Your task to perform on an android device: What is the capital of Canada? Image 0: 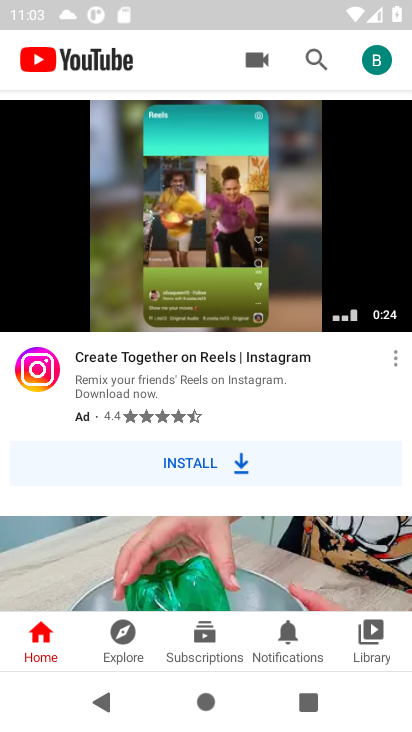
Step 0: press home button
Your task to perform on an android device: What is the capital of Canada? Image 1: 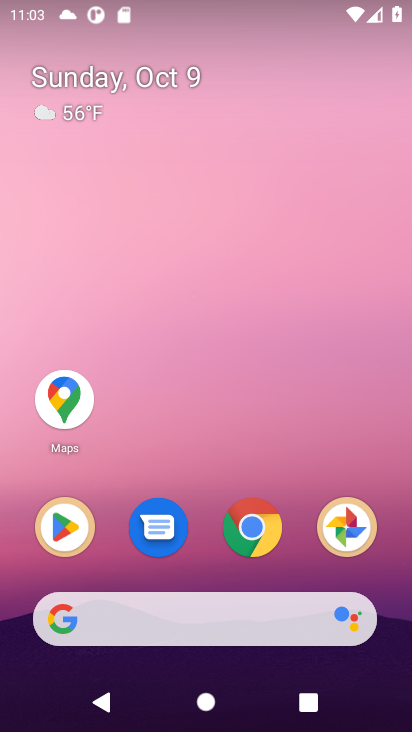
Step 1: click (231, 615)
Your task to perform on an android device: What is the capital of Canada? Image 2: 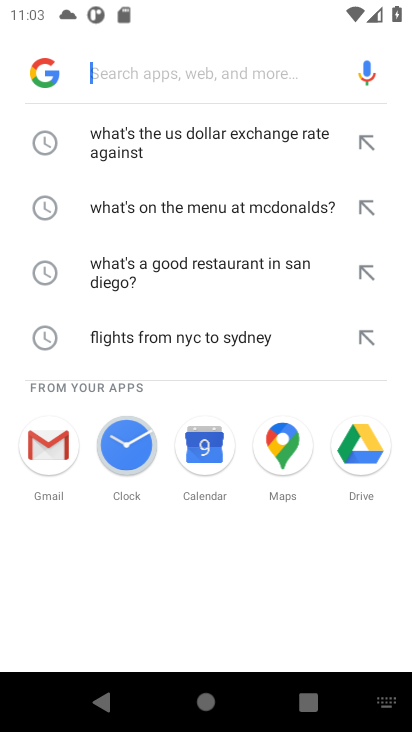
Step 2: click (229, 58)
Your task to perform on an android device: What is the capital of Canada? Image 3: 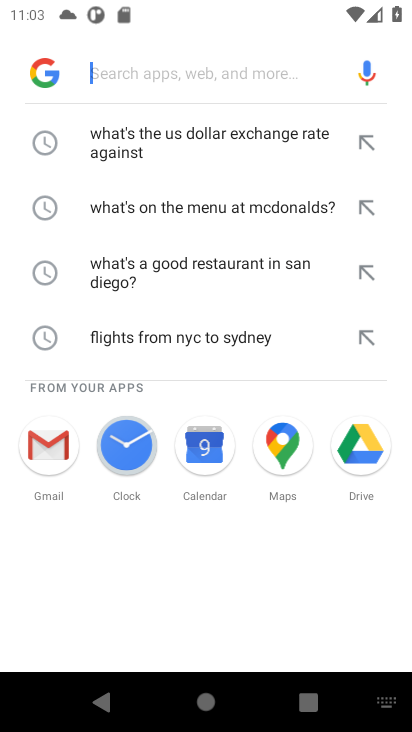
Step 3: type "What is the capital of Canada?"
Your task to perform on an android device: What is the capital of Canada? Image 4: 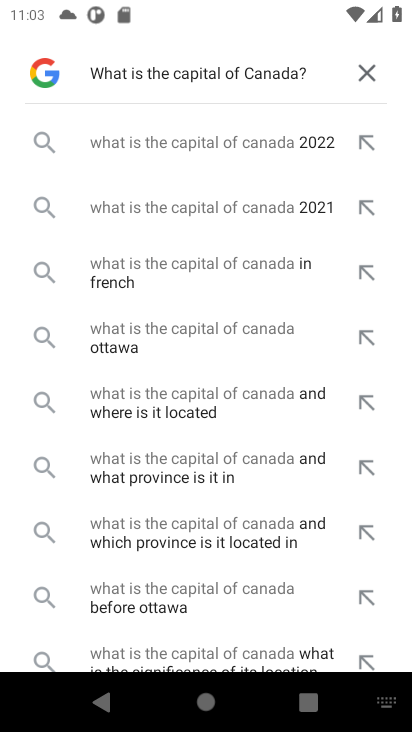
Step 4: click (167, 144)
Your task to perform on an android device: What is the capital of Canada? Image 5: 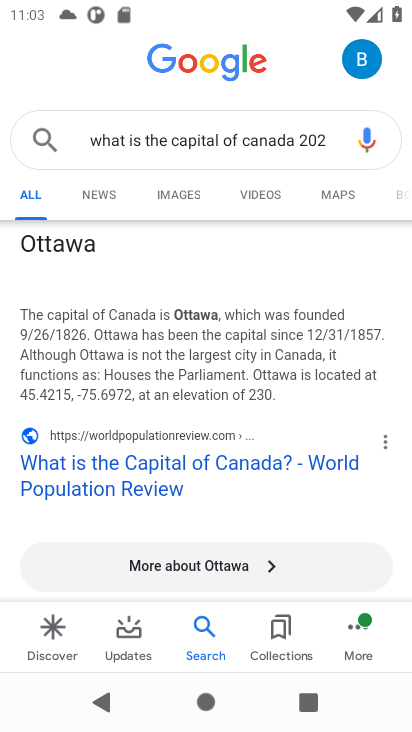
Step 5: click (83, 248)
Your task to perform on an android device: What is the capital of Canada? Image 6: 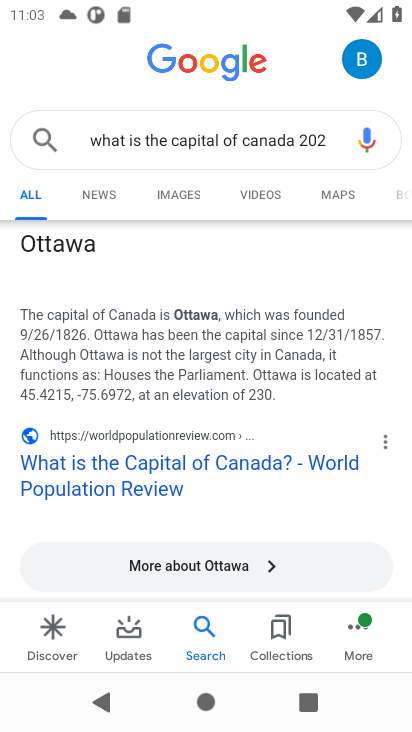
Step 6: click (31, 252)
Your task to perform on an android device: What is the capital of Canada? Image 7: 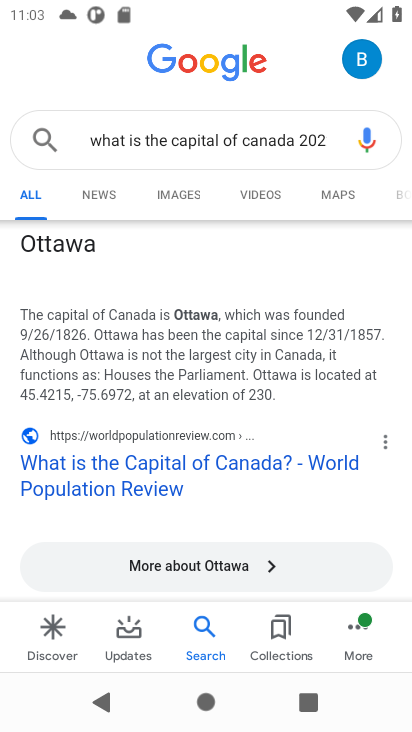
Step 7: click (51, 241)
Your task to perform on an android device: What is the capital of Canada? Image 8: 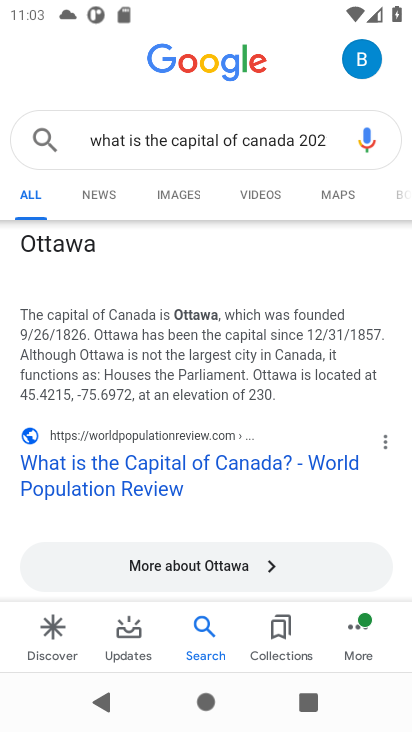
Step 8: drag from (197, 341) to (187, 482)
Your task to perform on an android device: What is the capital of Canada? Image 9: 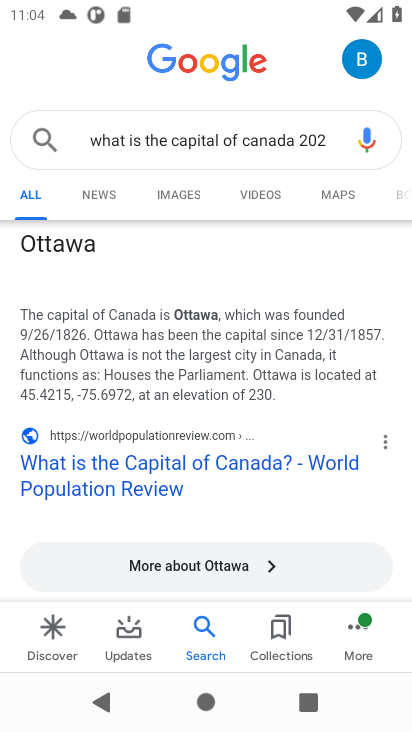
Step 9: click (59, 245)
Your task to perform on an android device: What is the capital of Canada? Image 10: 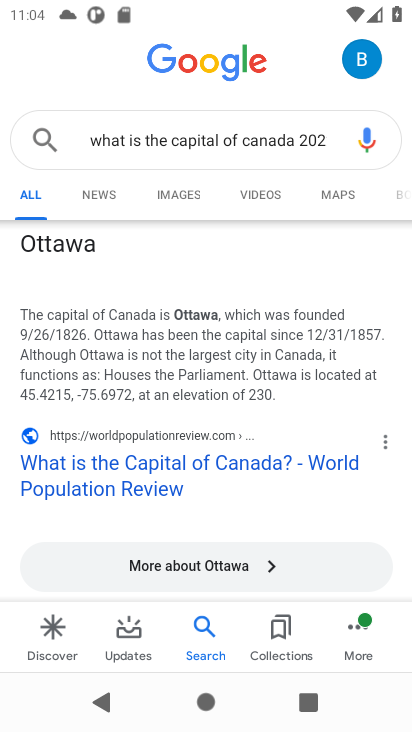
Step 10: task complete